Your task to perform on an android device: open app "Messenger Lite" (install if not already installed), go to login, and select forgot password Image 0: 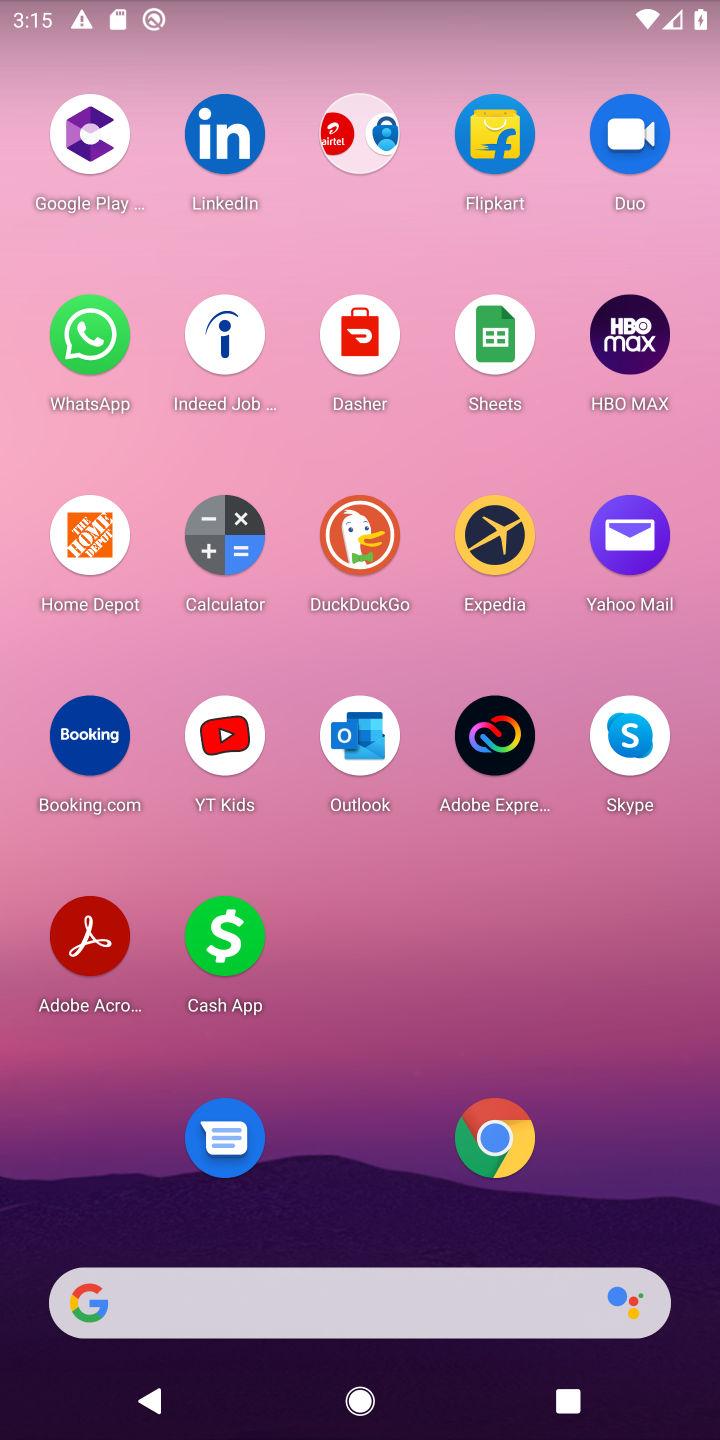
Step 0: drag from (352, 1268) to (420, 71)
Your task to perform on an android device: open app "Messenger Lite" (install if not already installed), go to login, and select forgot password Image 1: 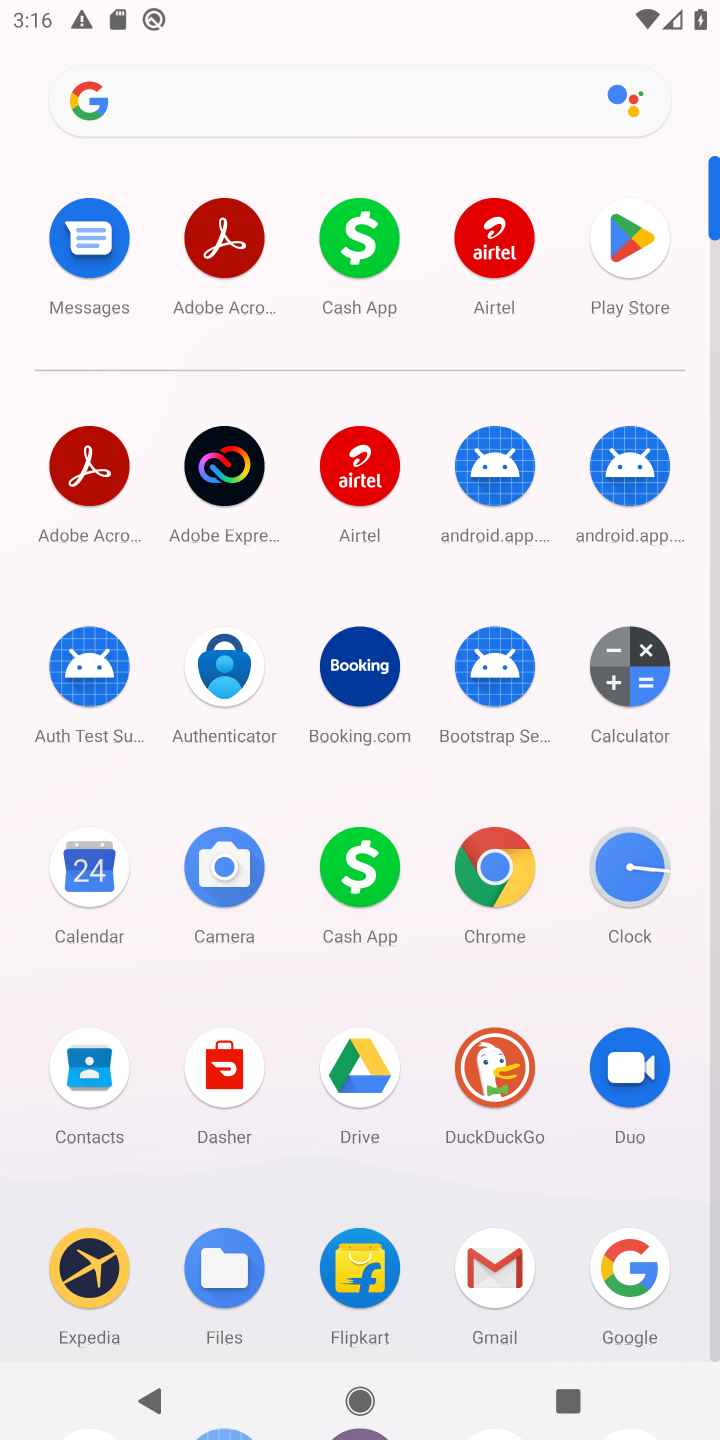
Step 1: click (631, 234)
Your task to perform on an android device: open app "Messenger Lite" (install if not already installed), go to login, and select forgot password Image 2: 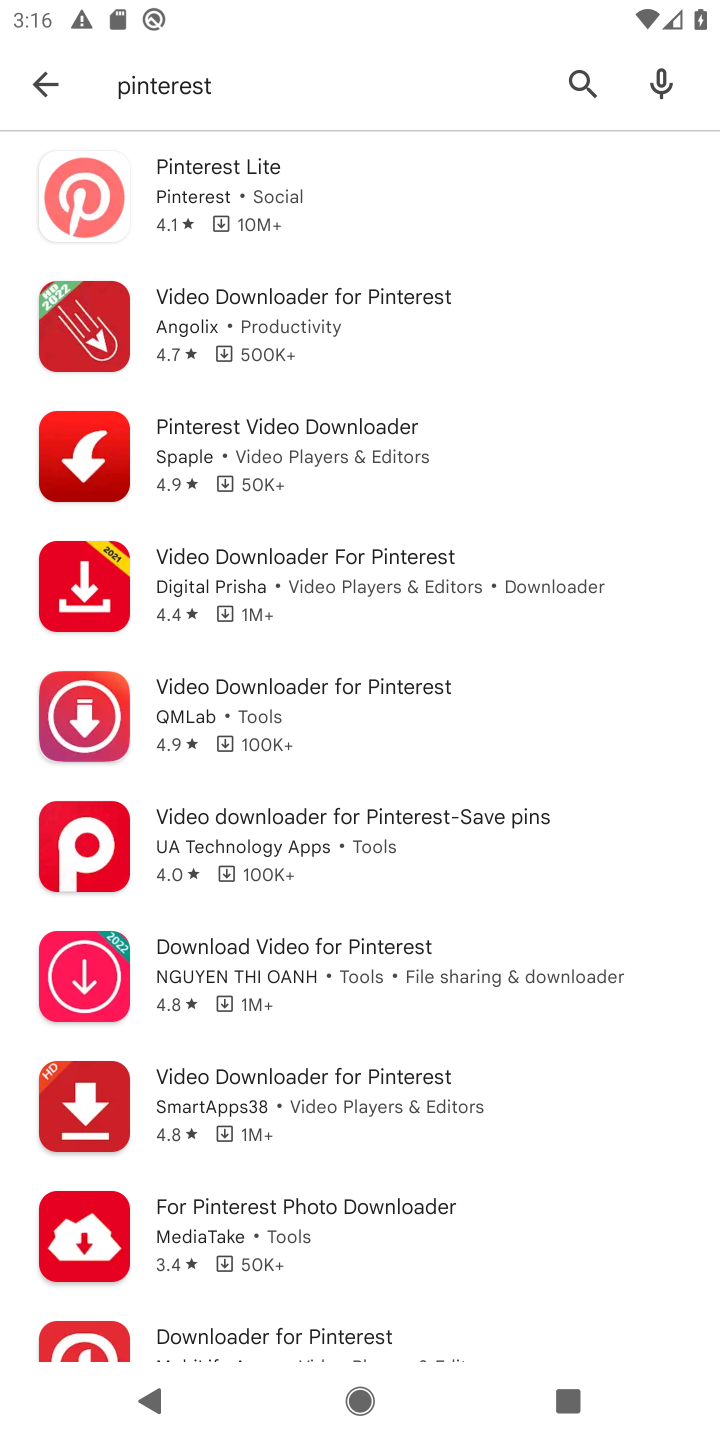
Step 2: click (586, 77)
Your task to perform on an android device: open app "Messenger Lite" (install if not already installed), go to login, and select forgot password Image 3: 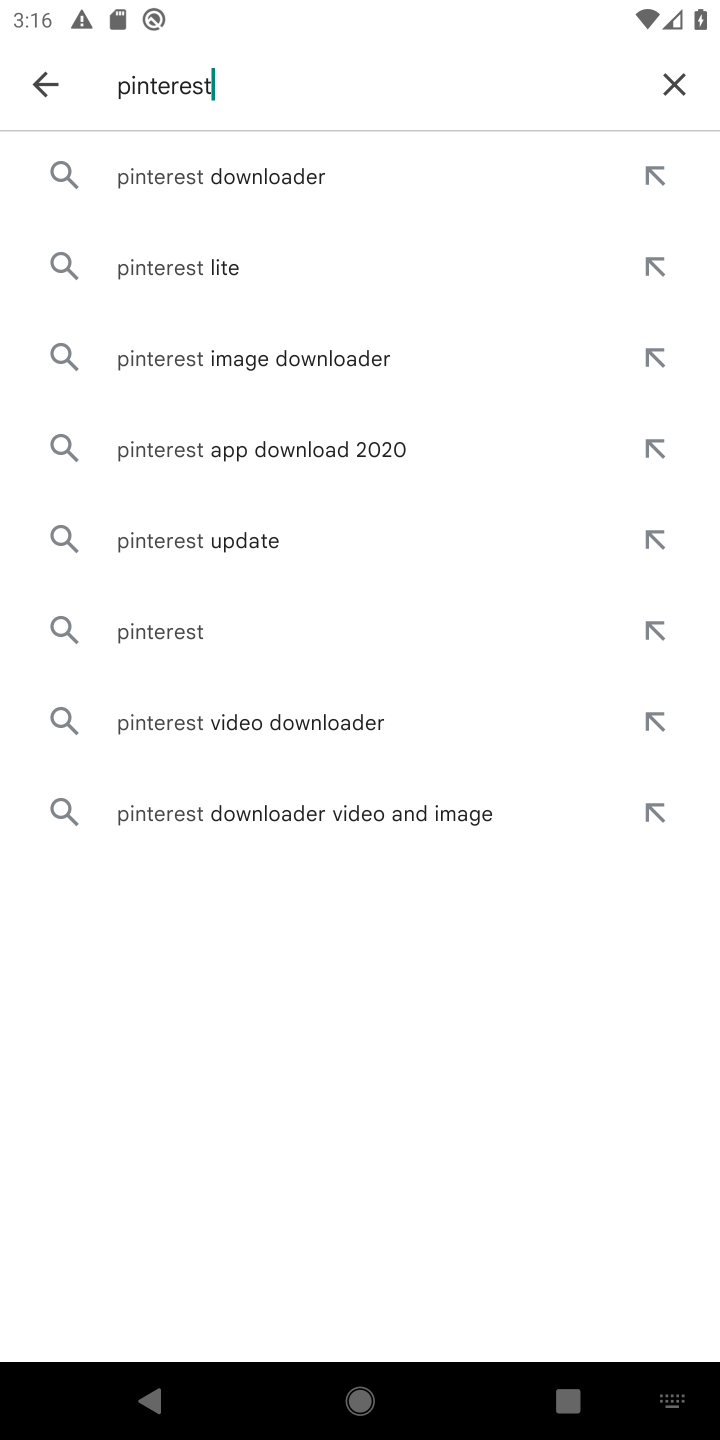
Step 3: click (669, 79)
Your task to perform on an android device: open app "Messenger Lite" (install if not already installed), go to login, and select forgot password Image 4: 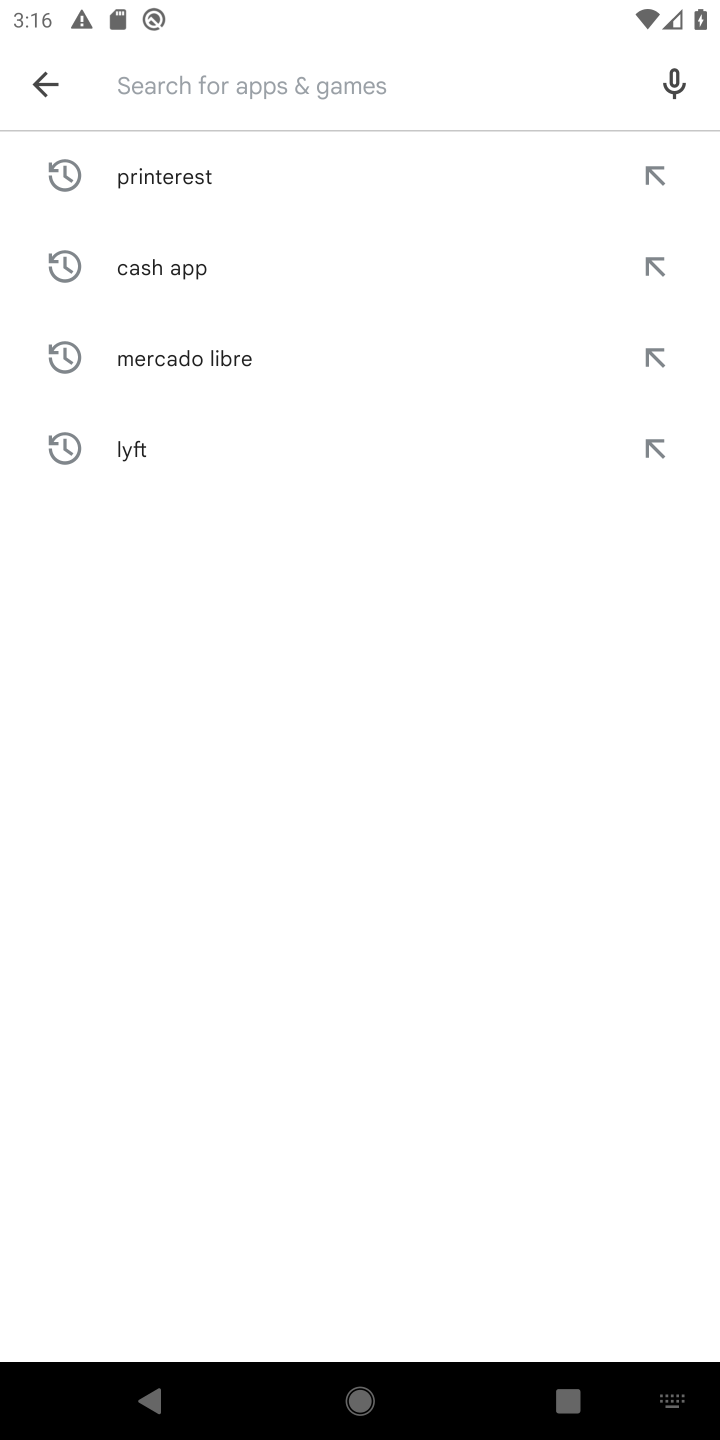
Step 4: type "Messenger Lite"
Your task to perform on an android device: open app "Messenger Lite" (install if not already installed), go to login, and select forgot password Image 5: 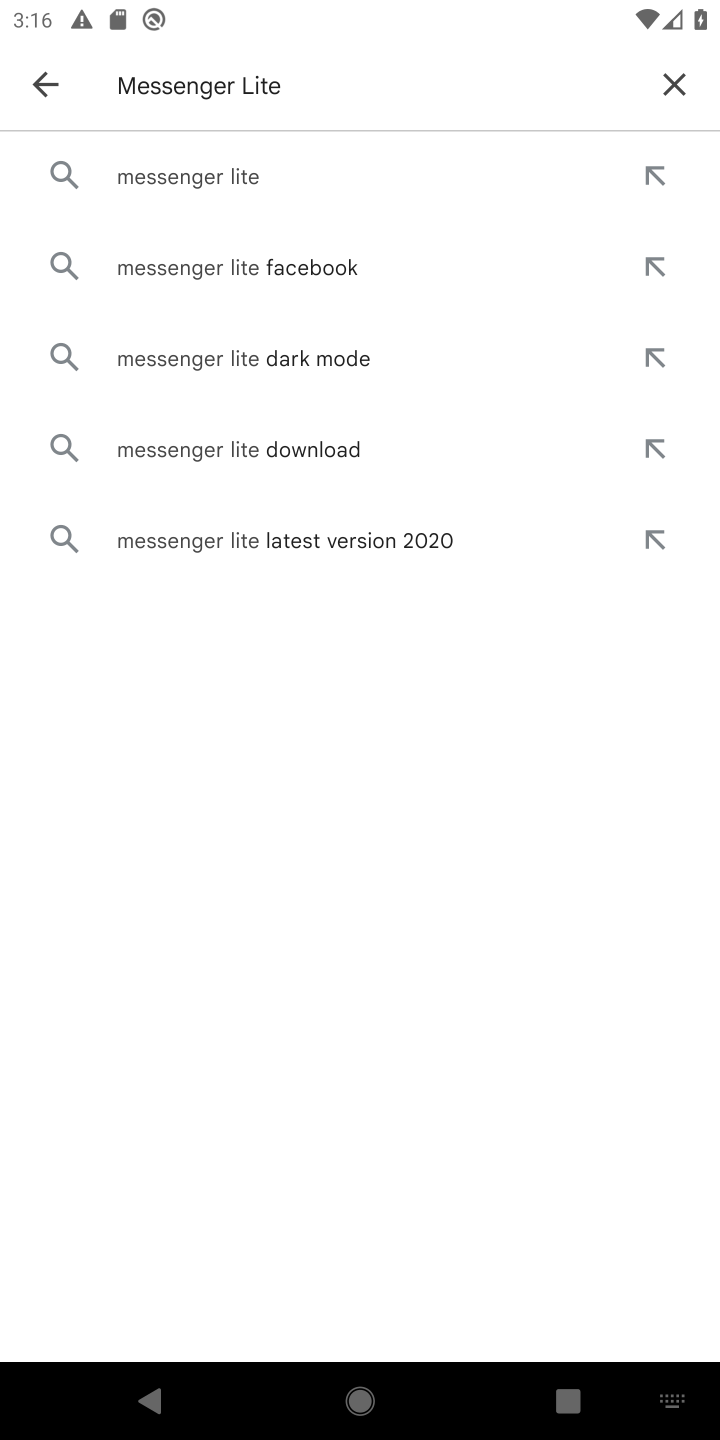
Step 5: click (234, 174)
Your task to perform on an android device: open app "Messenger Lite" (install if not already installed), go to login, and select forgot password Image 6: 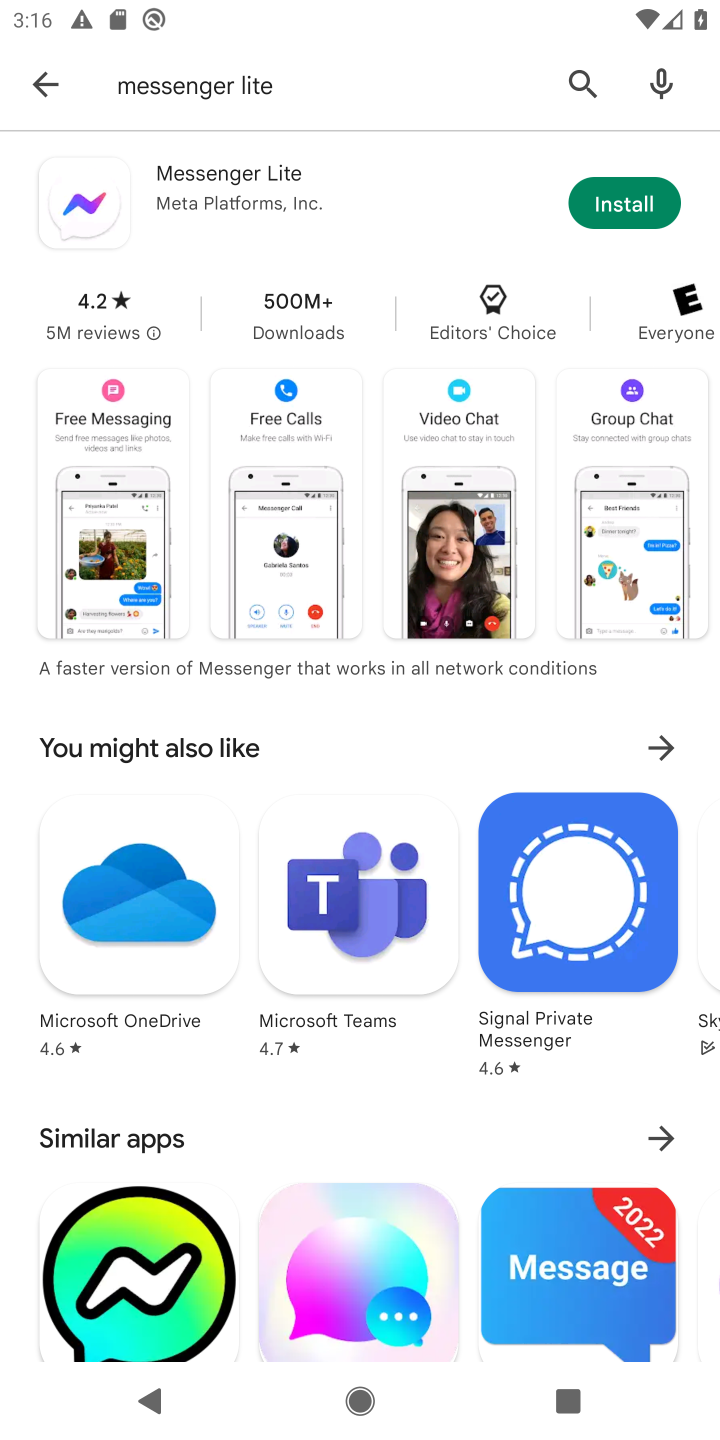
Step 6: click (603, 212)
Your task to perform on an android device: open app "Messenger Lite" (install if not already installed), go to login, and select forgot password Image 7: 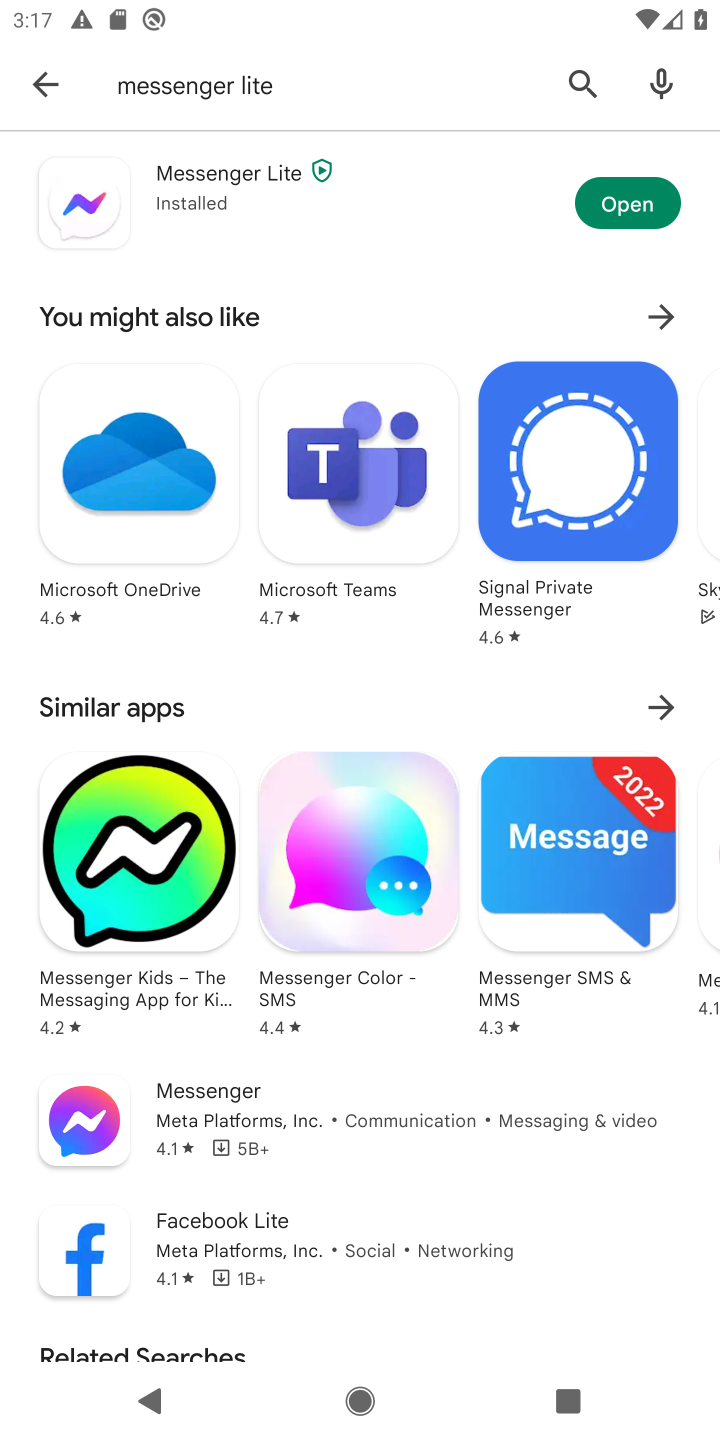
Step 7: click (613, 204)
Your task to perform on an android device: open app "Messenger Lite" (install if not already installed), go to login, and select forgot password Image 8: 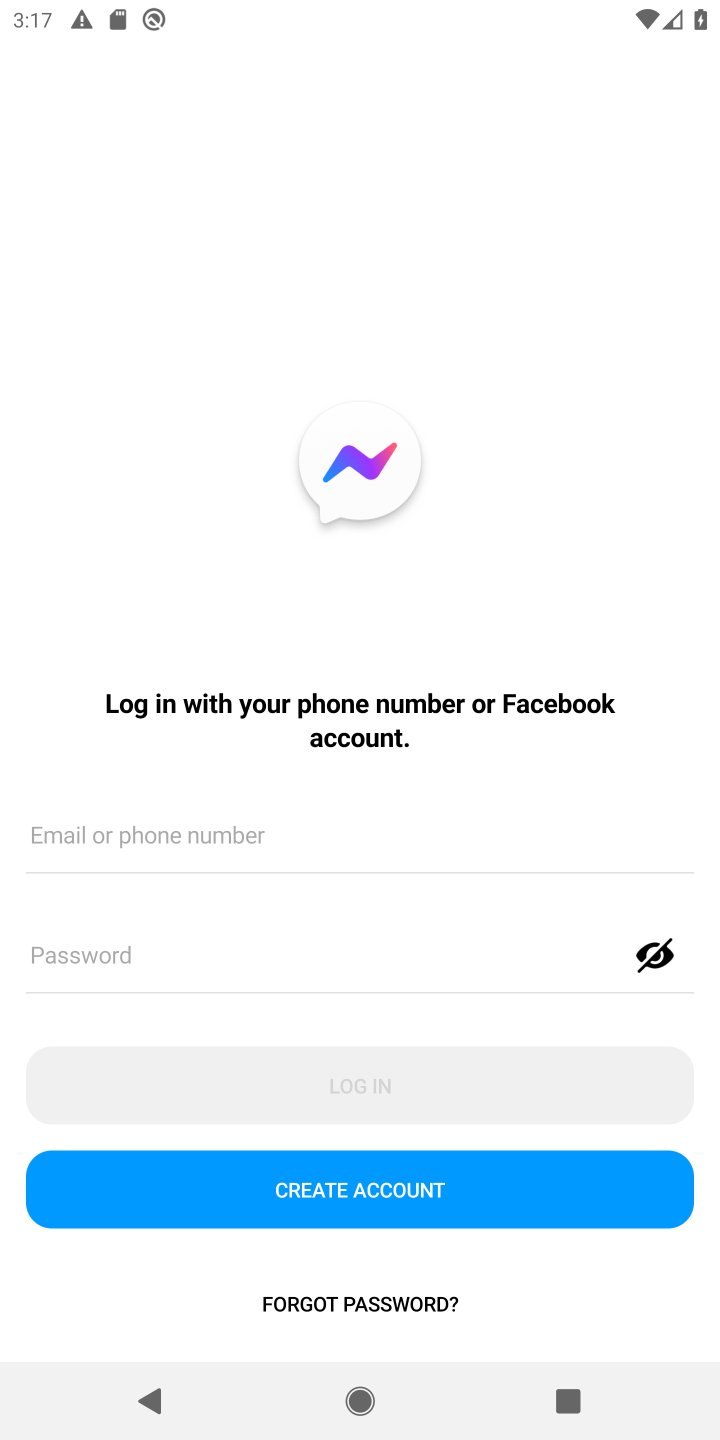
Step 8: click (398, 1299)
Your task to perform on an android device: open app "Messenger Lite" (install if not already installed), go to login, and select forgot password Image 9: 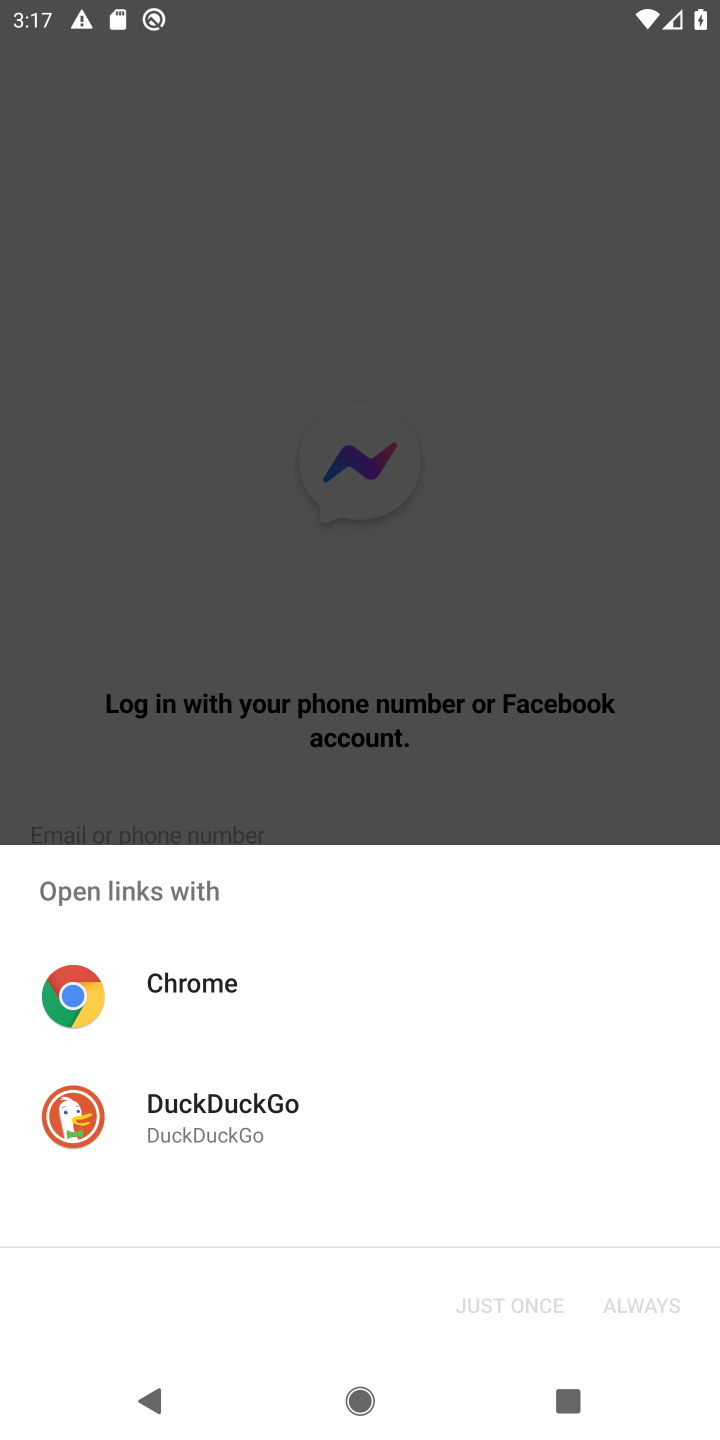
Step 9: task complete